Your task to perform on an android device: Do I have any events tomorrow? Image 0: 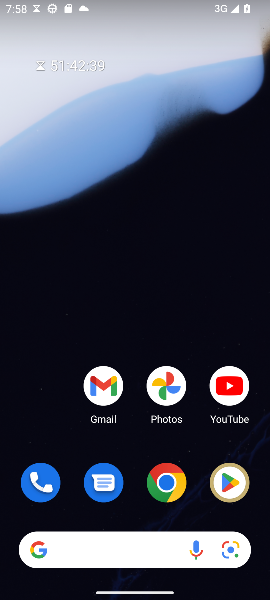
Step 0: drag from (95, 483) to (149, 30)
Your task to perform on an android device: Do I have any events tomorrow? Image 1: 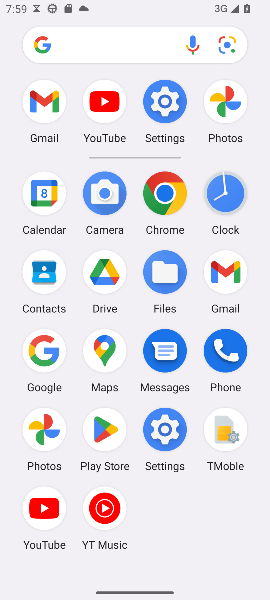
Step 1: click (55, 191)
Your task to perform on an android device: Do I have any events tomorrow? Image 2: 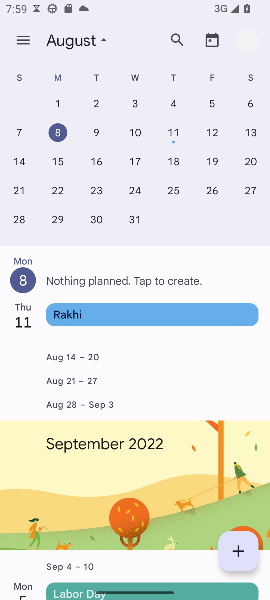
Step 2: click (98, 126)
Your task to perform on an android device: Do I have any events tomorrow? Image 3: 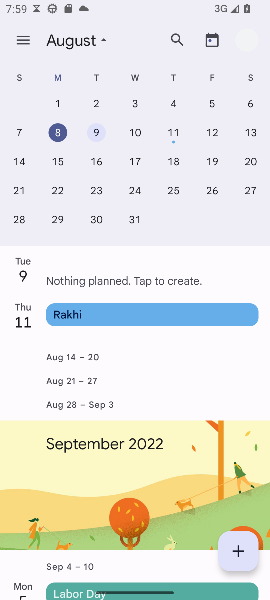
Step 3: click (98, 126)
Your task to perform on an android device: Do I have any events tomorrow? Image 4: 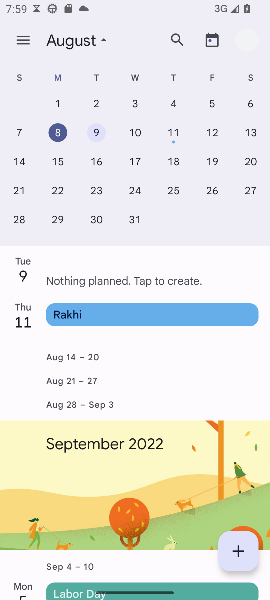
Step 4: click (91, 137)
Your task to perform on an android device: Do I have any events tomorrow? Image 5: 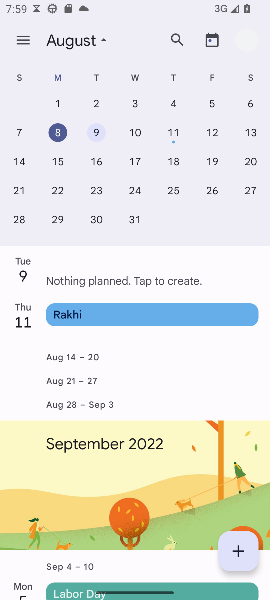
Step 5: click (91, 136)
Your task to perform on an android device: Do I have any events tomorrow? Image 6: 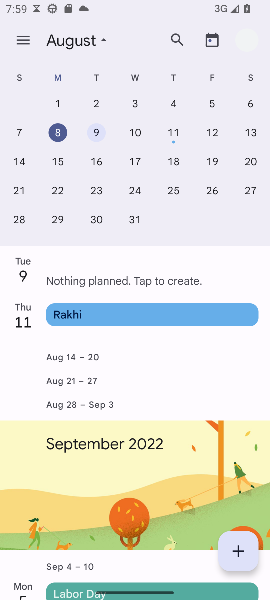
Step 6: click (93, 136)
Your task to perform on an android device: Do I have any events tomorrow? Image 7: 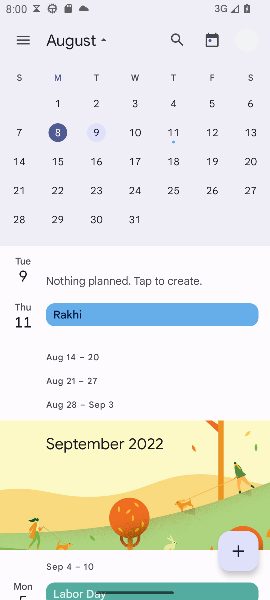
Step 7: task complete